Your task to perform on an android device: Show me recent news Image 0: 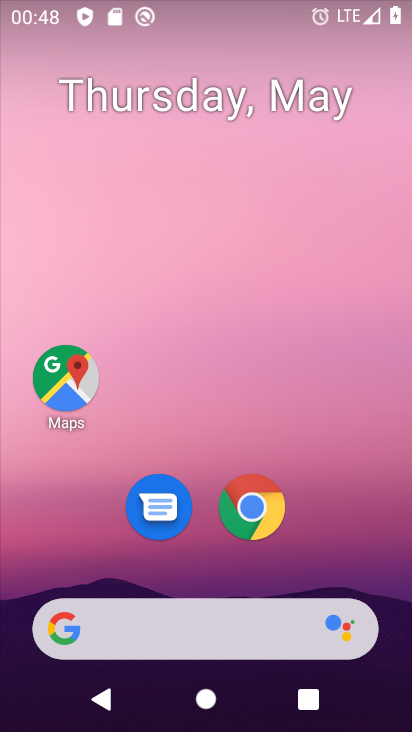
Step 0: click (227, 236)
Your task to perform on an android device: Show me recent news Image 1: 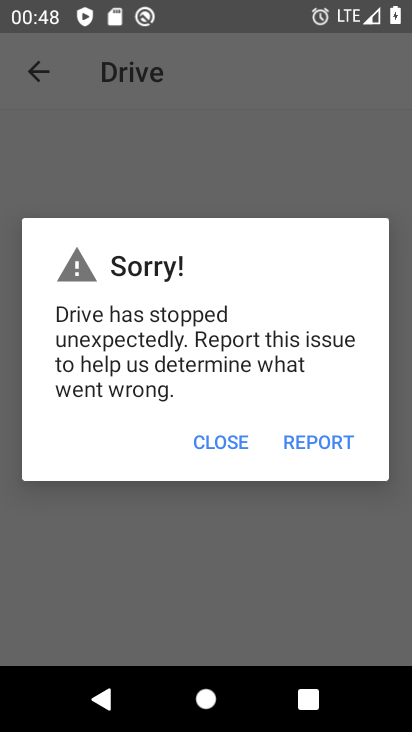
Step 1: press home button
Your task to perform on an android device: Show me recent news Image 2: 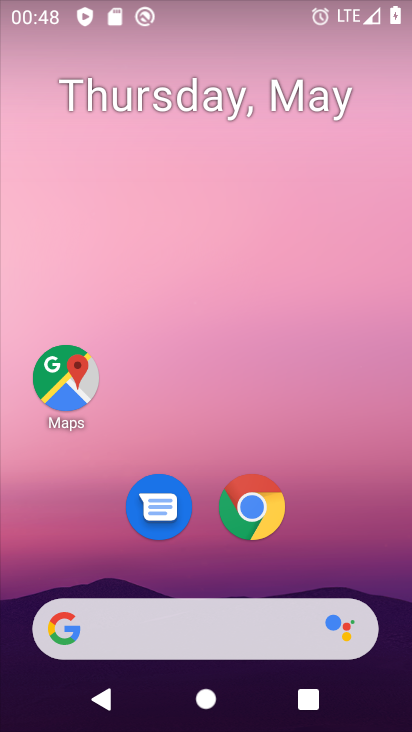
Step 2: drag from (205, 574) to (230, 214)
Your task to perform on an android device: Show me recent news Image 3: 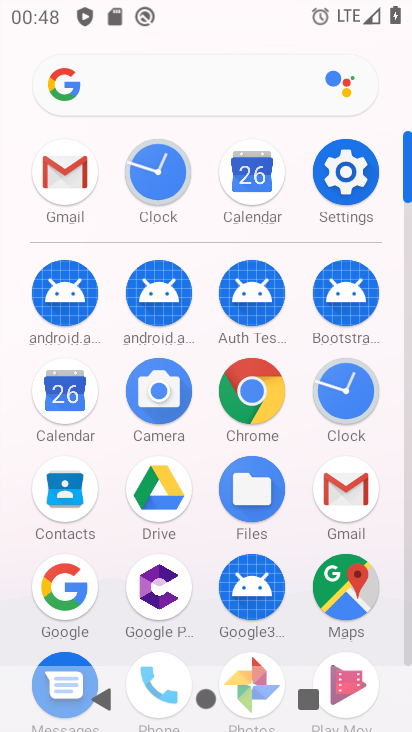
Step 3: click (75, 579)
Your task to perform on an android device: Show me recent news Image 4: 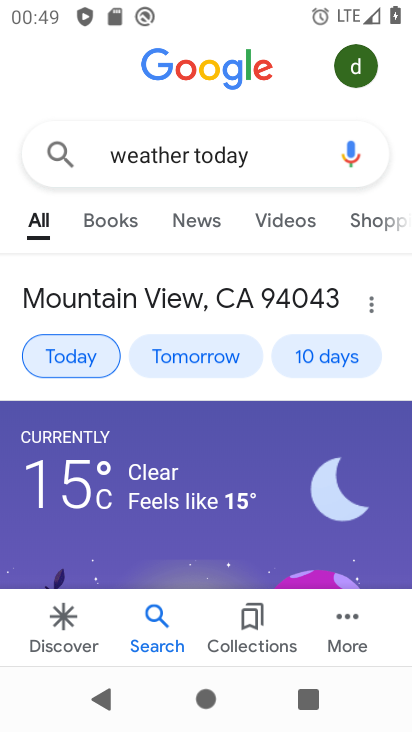
Step 4: click (288, 141)
Your task to perform on an android device: Show me recent news Image 5: 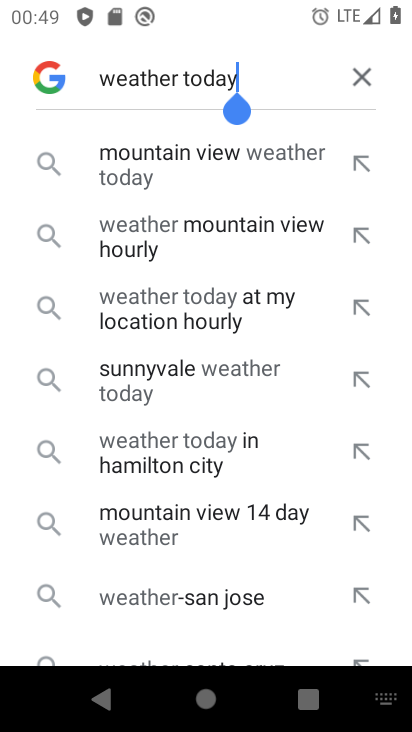
Step 5: click (342, 84)
Your task to perform on an android device: Show me recent news Image 6: 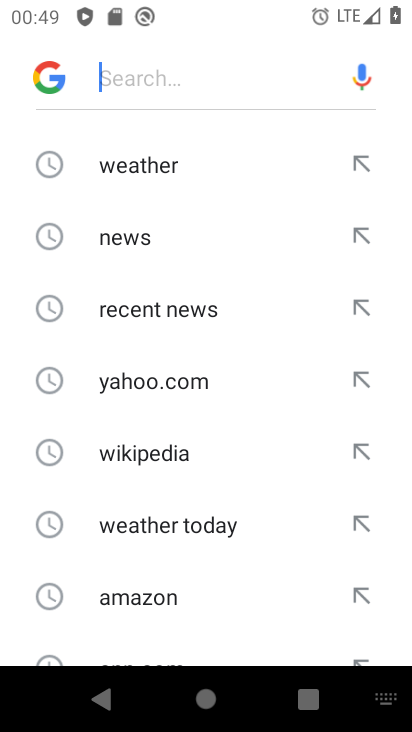
Step 6: click (174, 236)
Your task to perform on an android device: Show me recent news Image 7: 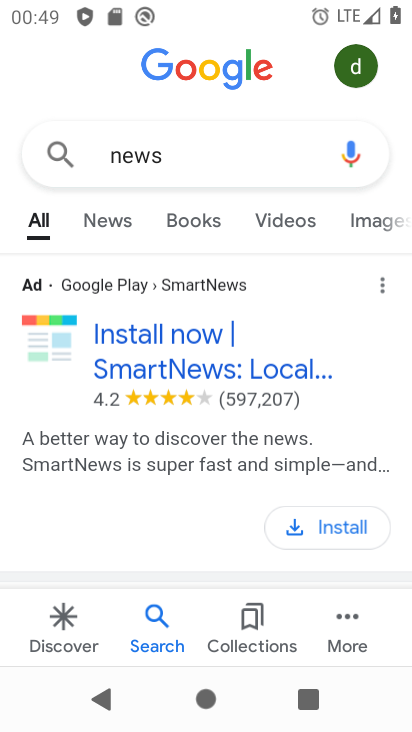
Step 7: click (104, 216)
Your task to perform on an android device: Show me recent news Image 8: 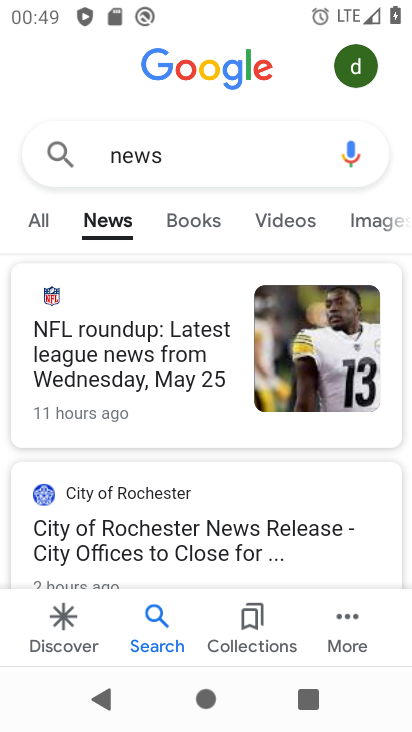
Step 8: task complete